Your task to perform on an android device: Show me popular games on the Play Store Image 0: 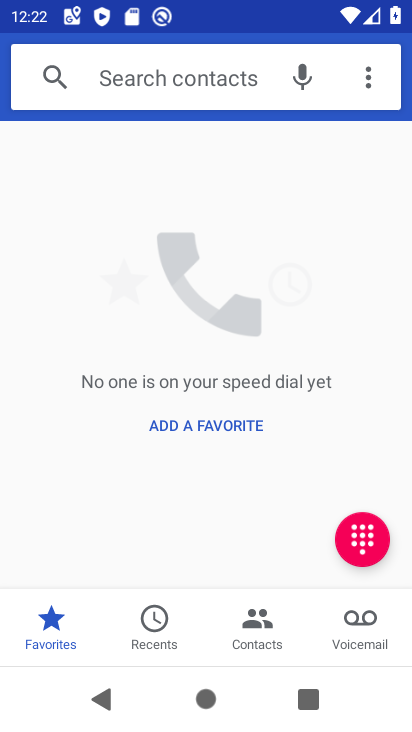
Step 0: press home button
Your task to perform on an android device: Show me popular games on the Play Store Image 1: 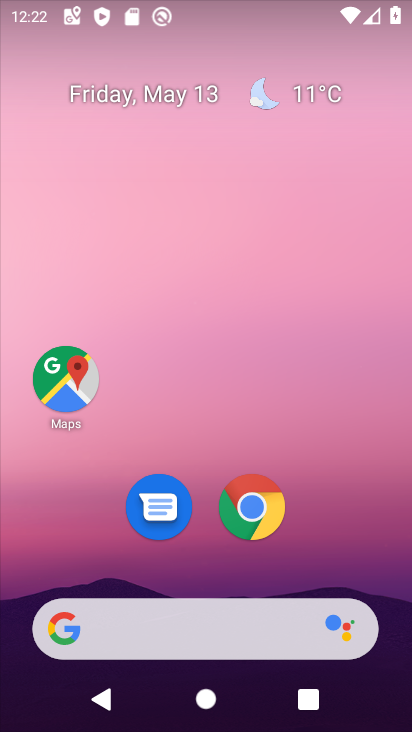
Step 1: drag from (196, 587) to (114, 71)
Your task to perform on an android device: Show me popular games on the Play Store Image 2: 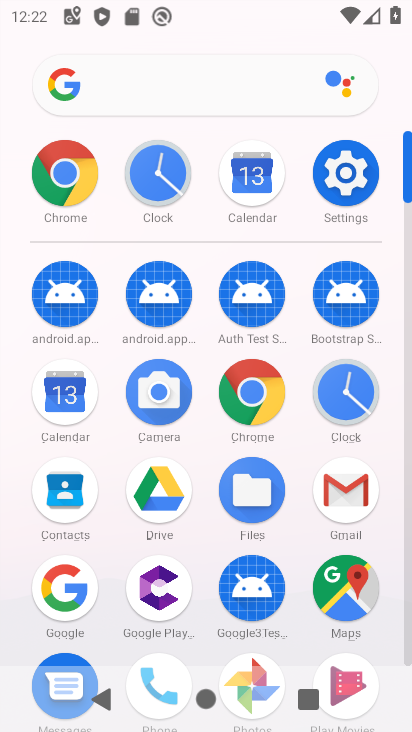
Step 2: drag from (307, 598) to (311, 110)
Your task to perform on an android device: Show me popular games on the Play Store Image 3: 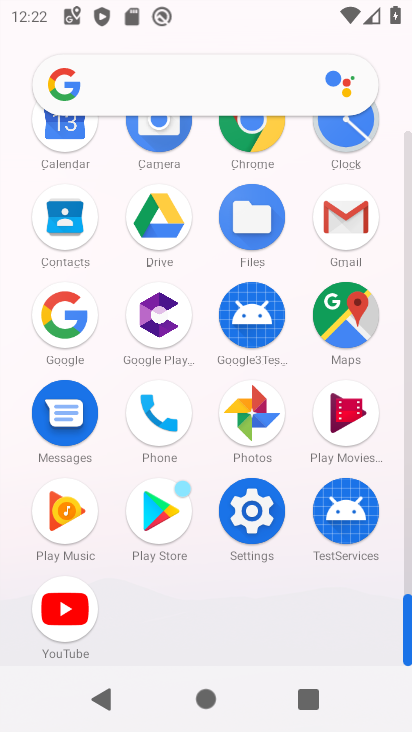
Step 3: click (137, 495)
Your task to perform on an android device: Show me popular games on the Play Store Image 4: 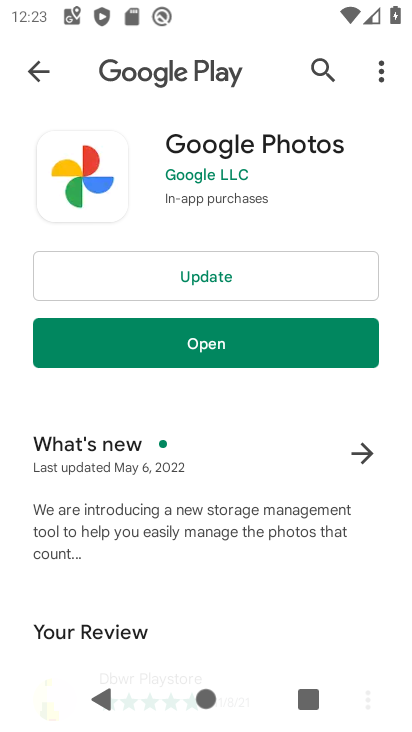
Step 4: click (48, 69)
Your task to perform on an android device: Show me popular games on the Play Store Image 5: 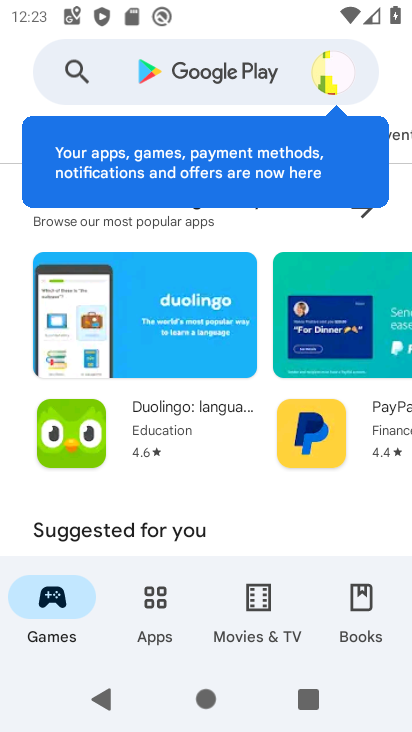
Step 5: drag from (134, 536) to (120, 38)
Your task to perform on an android device: Show me popular games on the Play Store Image 6: 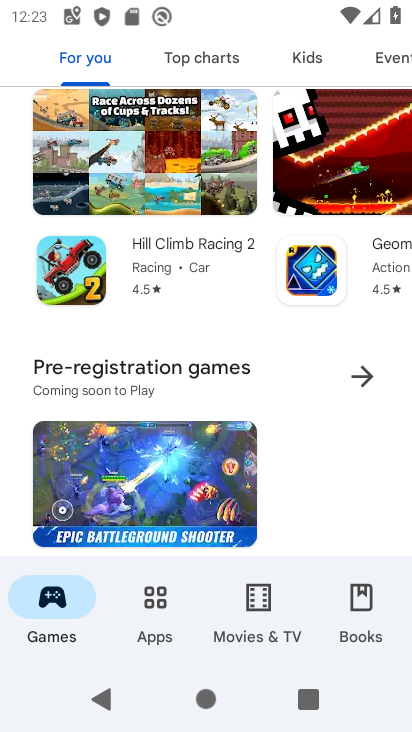
Step 6: click (359, 380)
Your task to perform on an android device: Show me popular games on the Play Store Image 7: 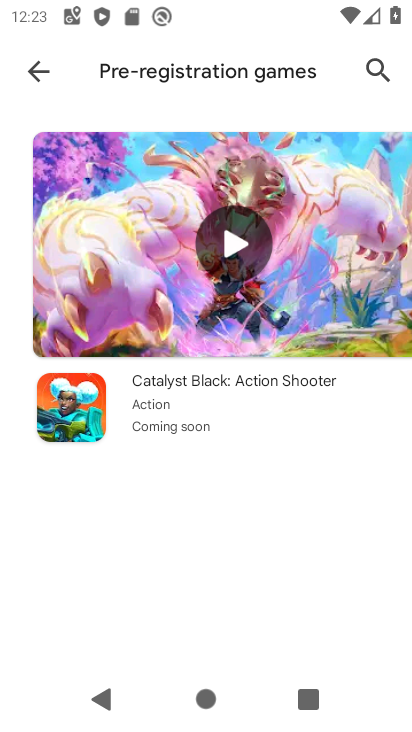
Step 7: click (49, 64)
Your task to perform on an android device: Show me popular games on the Play Store Image 8: 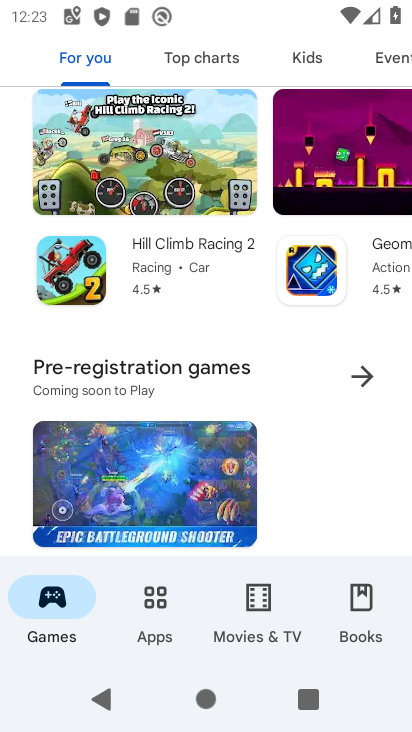
Step 8: drag from (199, 557) to (205, 13)
Your task to perform on an android device: Show me popular games on the Play Store Image 9: 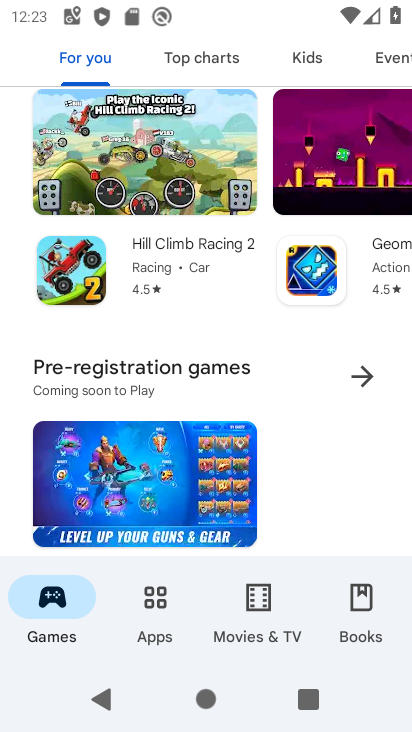
Step 9: drag from (223, 332) to (223, 16)
Your task to perform on an android device: Show me popular games on the Play Store Image 10: 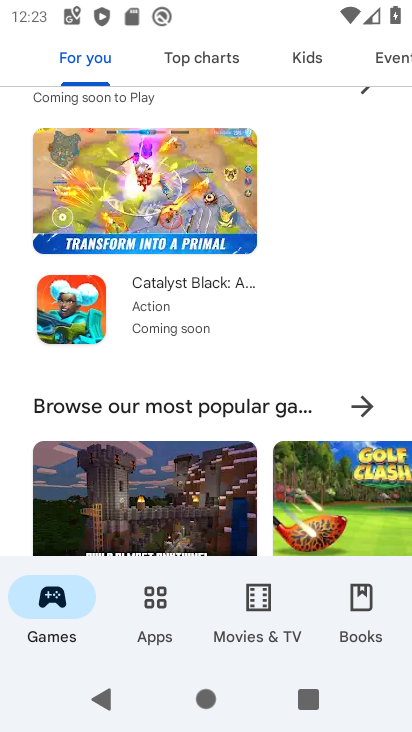
Step 10: click (348, 406)
Your task to perform on an android device: Show me popular games on the Play Store Image 11: 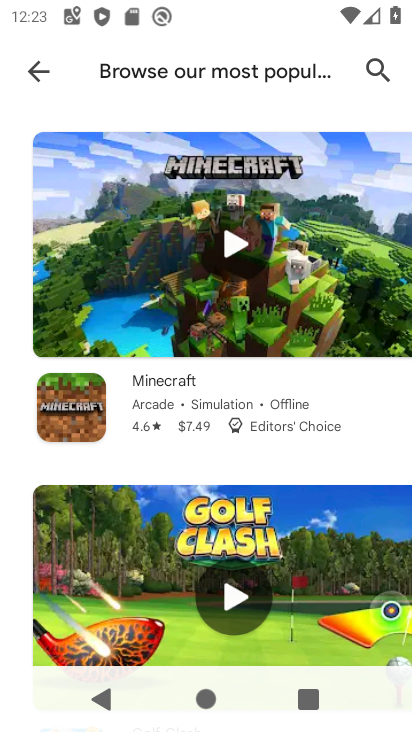
Step 11: task complete